Your task to perform on an android device: change text size in settings app Image 0: 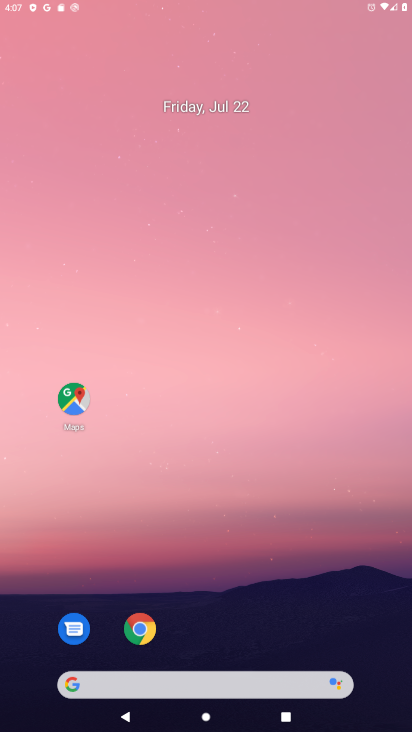
Step 0: press home button
Your task to perform on an android device: change text size in settings app Image 1: 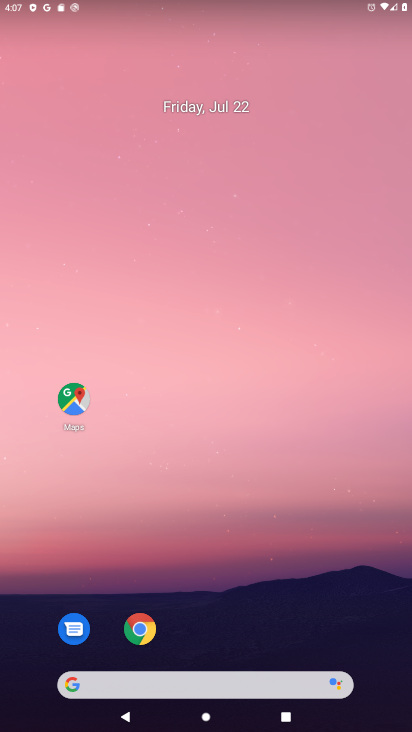
Step 1: drag from (240, 703) to (362, 178)
Your task to perform on an android device: change text size in settings app Image 2: 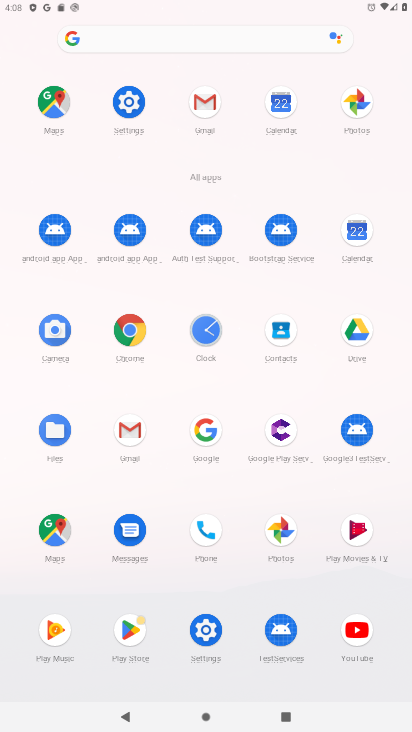
Step 2: click (127, 132)
Your task to perform on an android device: change text size in settings app Image 3: 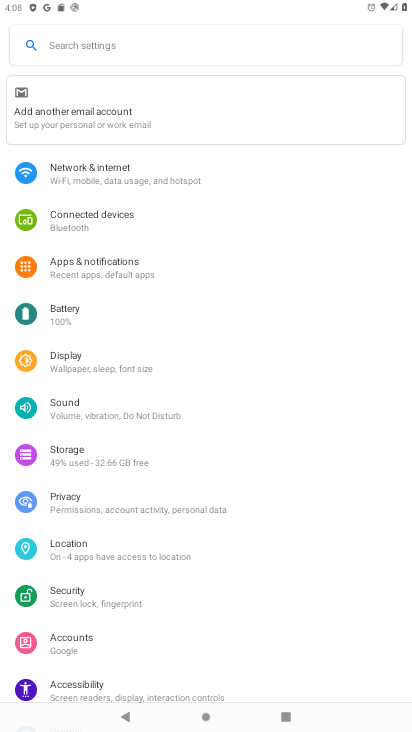
Step 3: click (135, 365)
Your task to perform on an android device: change text size in settings app Image 4: 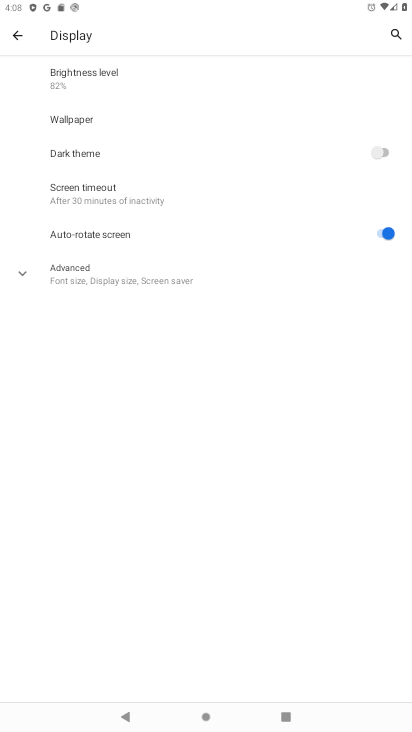
Step 4: click (132, 275)
Your task to perform on an android device: change text size in settings app Image 5: 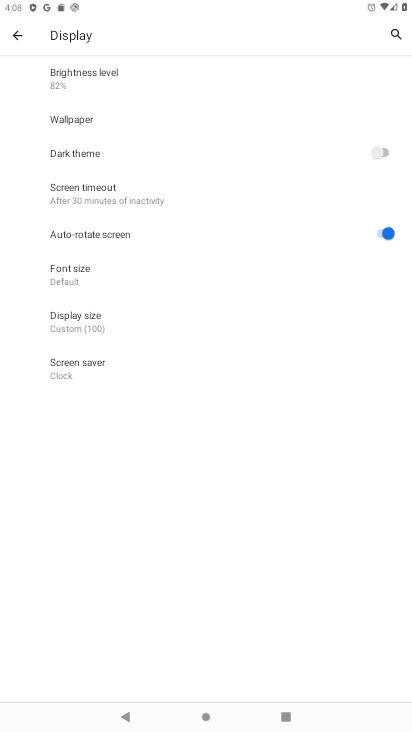
Step 5: click (120, 262)
Your task to perform on an android device: change text size in settings app Image 6: 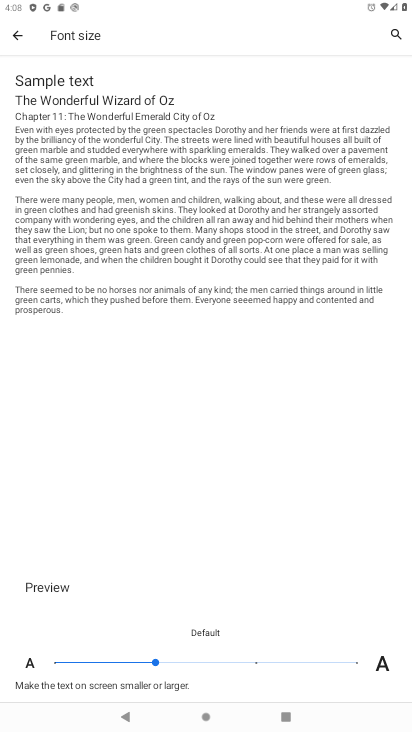
Step 6: click (217, 651)
Your task to perform on an android device: change text size in settings app Image 7: 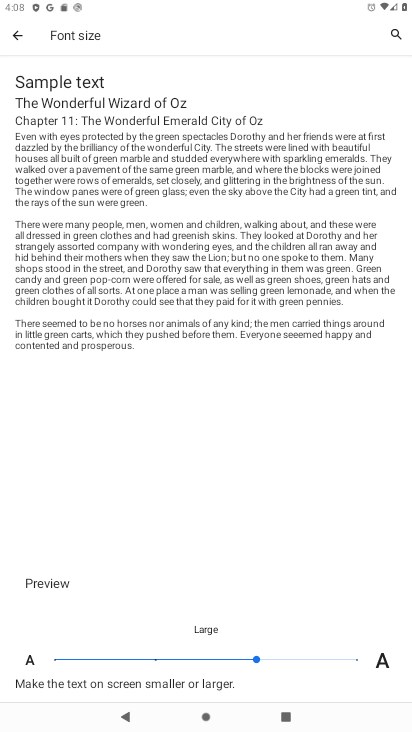
Step 7: task complete